Your task to perform on an android device: turn off translation in the chrome app Image 0: 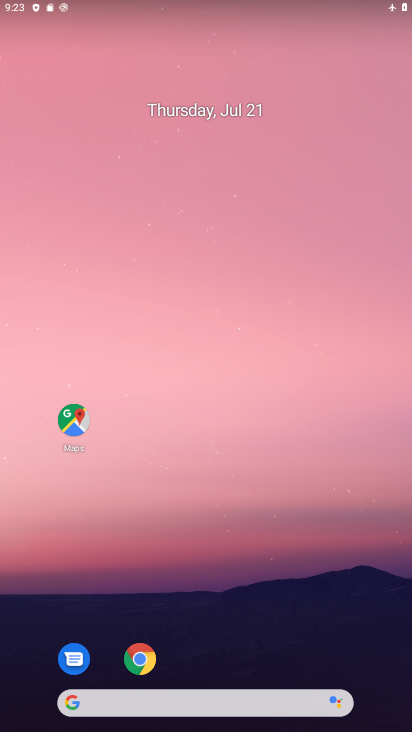
Step 0: click (133, 645)
Your task to perform on an android device: turn off translation in the chrome app Image 1: 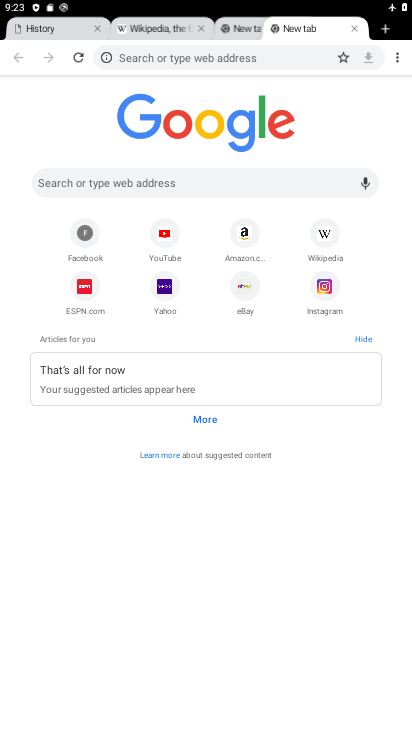
Step 1: drag from (393, 56) to (297, 261)
Your task to perform on an android device: turn off translation in the chrome app Image 2: 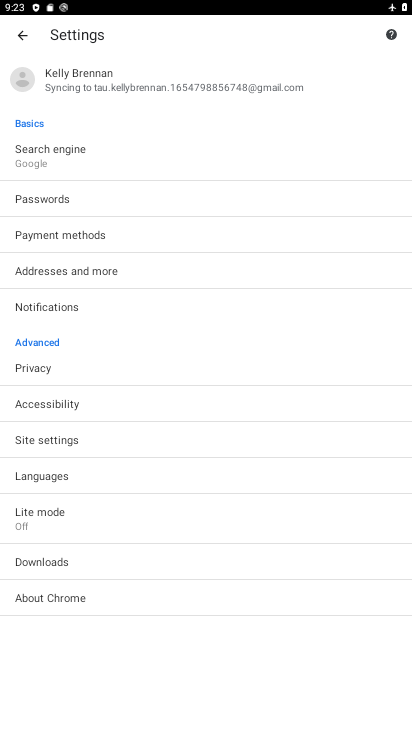
Step 2: click (48, 471)
Your task to perform on an android device: turn off translation in the chrome app Image 3: 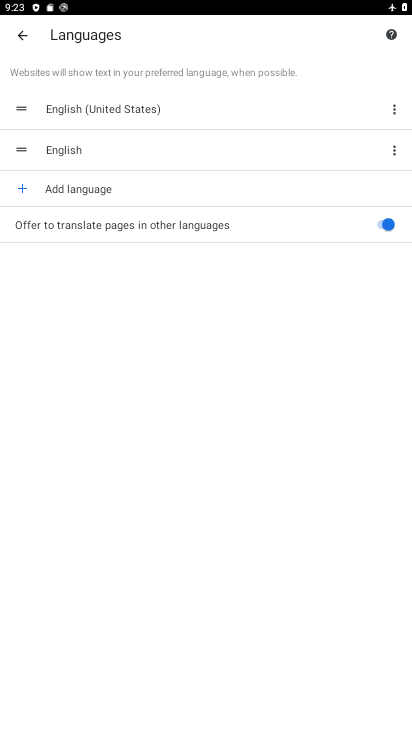
Step 3: click (373, 230)
Your task to perform on an android device: turn off translation in the chrome app Image 4: 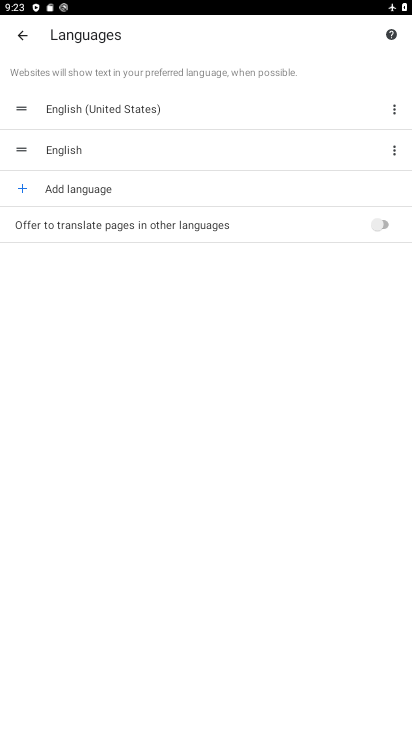
Step 4: task complete